Your task to perform on an android device: add a contact Image 0: 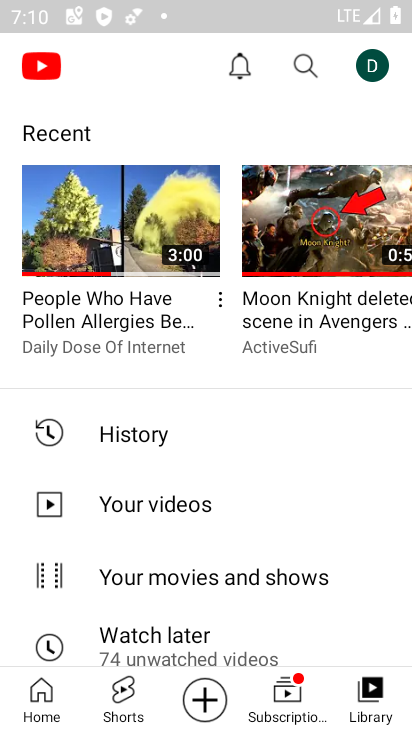
Step 0: press home button
Your task to perform on an android device: add a contact Image 1: 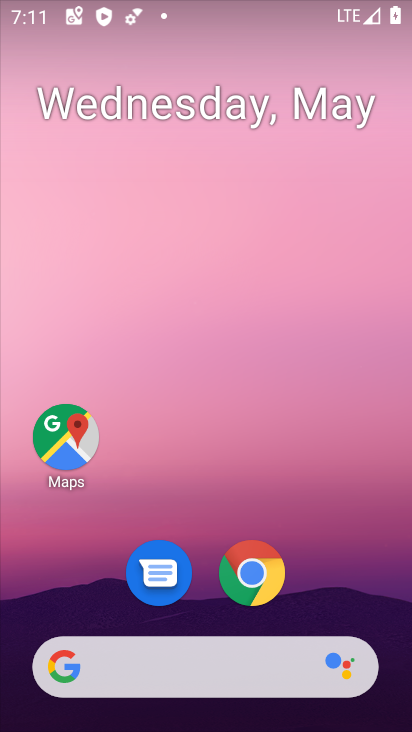
Step 1: drag from (315, 590) to (269, 170)
Your task to perform on an android device: add a contact Image 2: 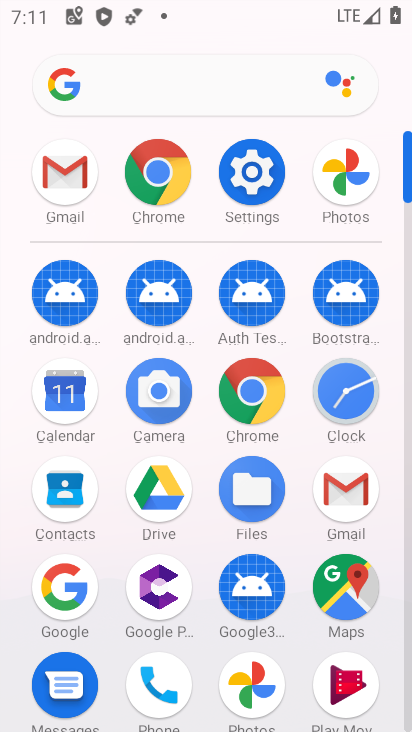
Step 2: click (69, 513)
Your task to perform on an android device: add a contact Image 3: 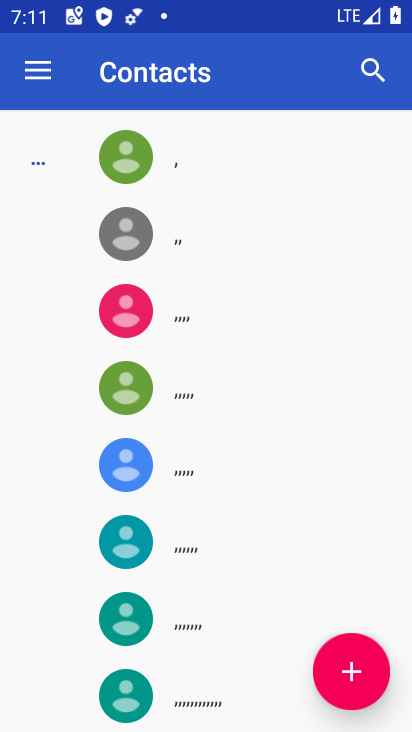
Step 3: click (353, 675)
Your task to perform on an android device: add a contact Image 4: 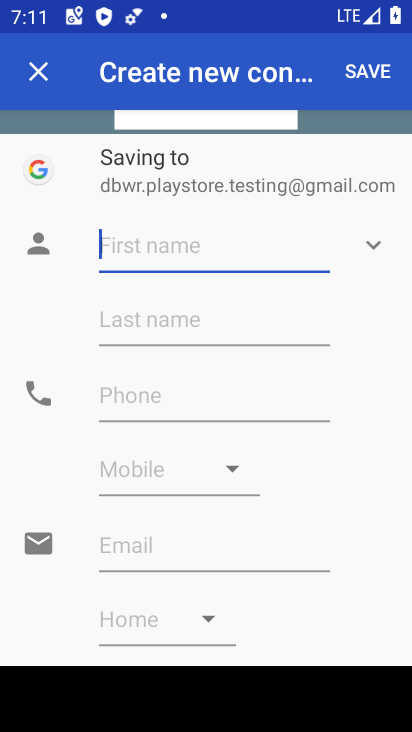
Step 4: click (159, 250)
Your task to perform on an android device: add a contact Image 5: 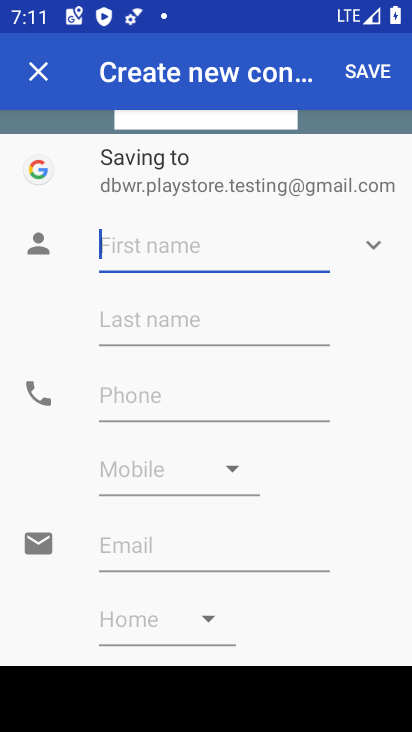
Step 5: type "Verma"
Your task to perform on an android device: add a contact Image 6: 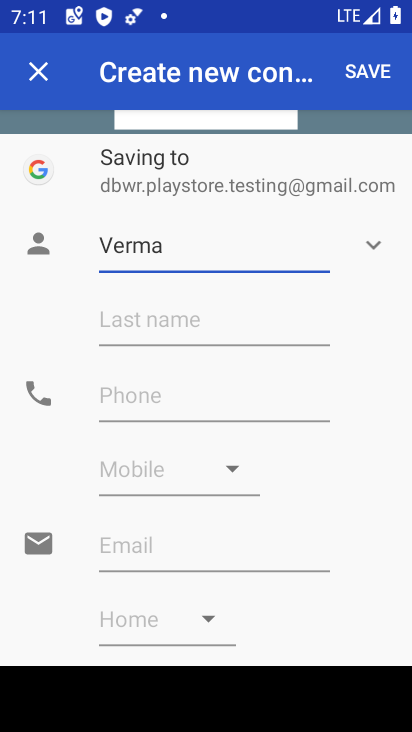
Step 6: click (192, 325)
Your task to perform on an android device: add a contact Image 7: 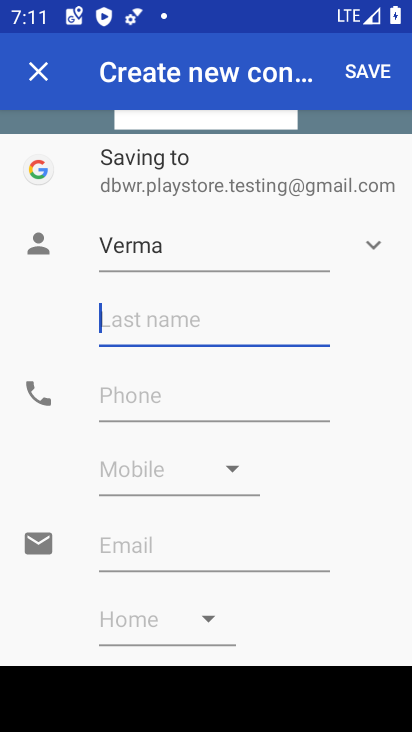
Step 7: type "ji"
Your task to perform on an android device: add a contact Image 8: 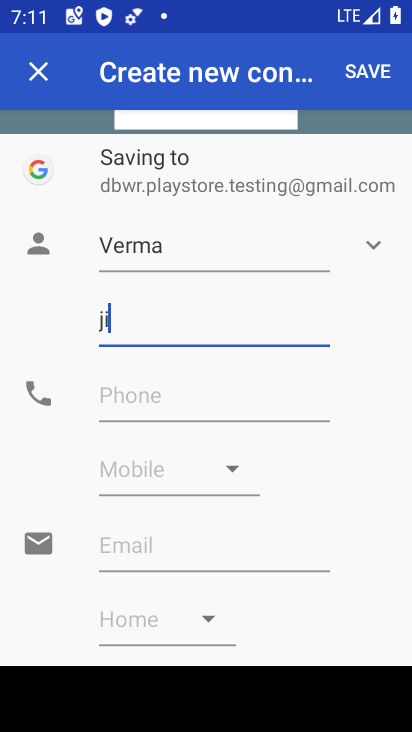
Step 8: click (128, 385)
Your task to perform on an android device: add a contact Image 9: 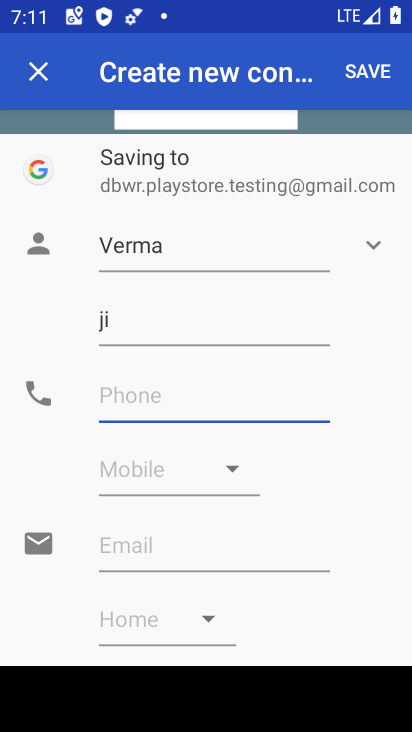
Step 9: click (190, 407)
Your task to perform on an android device: add a contact Image 10: 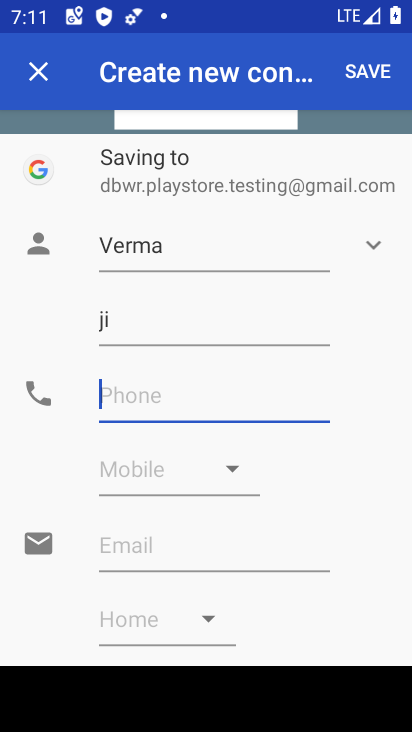
Step 10: type "8080090990"
Your task to perform on an android device: add a contact Image 11: 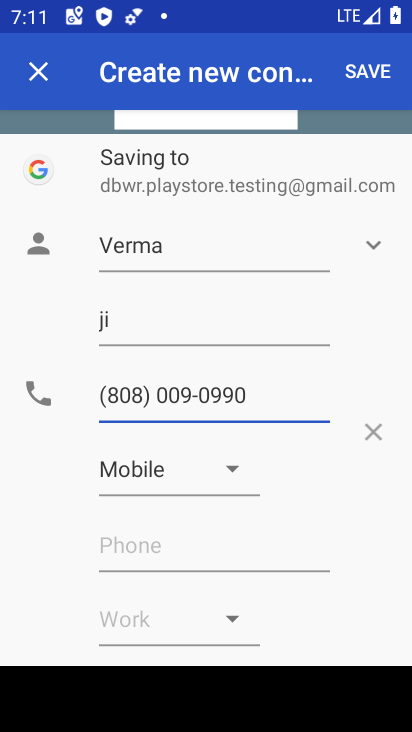
Step 11: click (375, 68)
Your task to perform on an android device: add a contact Image 12: 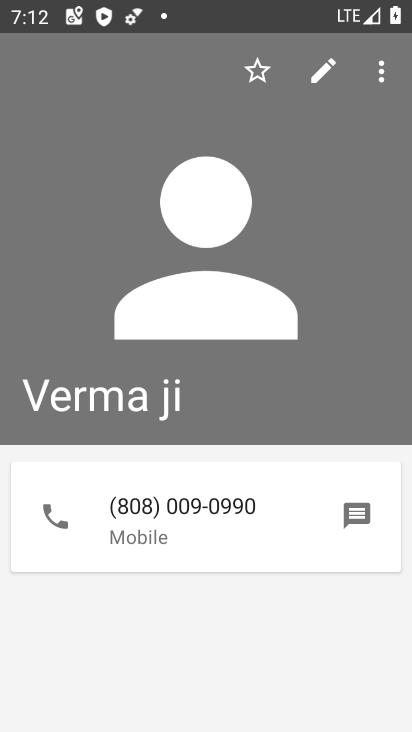
Step 12: task complete